Your task to perform on an android device: Open internet settings Image 0: 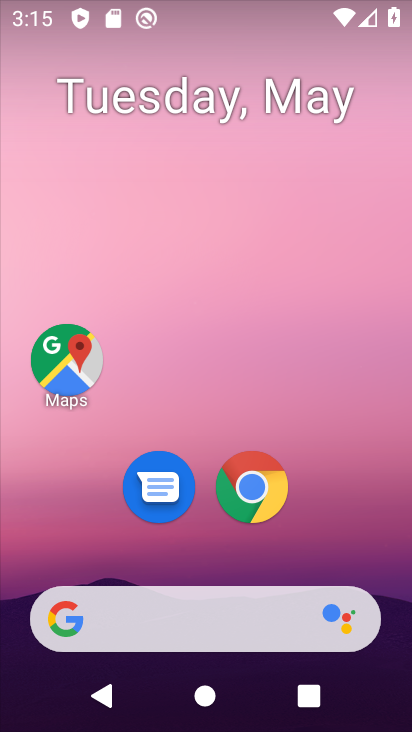
Step 0: drag from (215, 544) to (228, 172)
Your task to perform on an android device: Open internet settings Image 1: 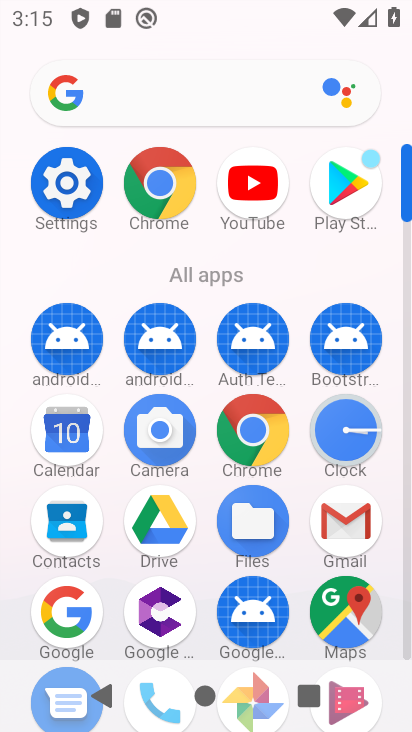
Step 1: click (69, 173)
Your task to perform on an android device: Open internet settings Image 2: 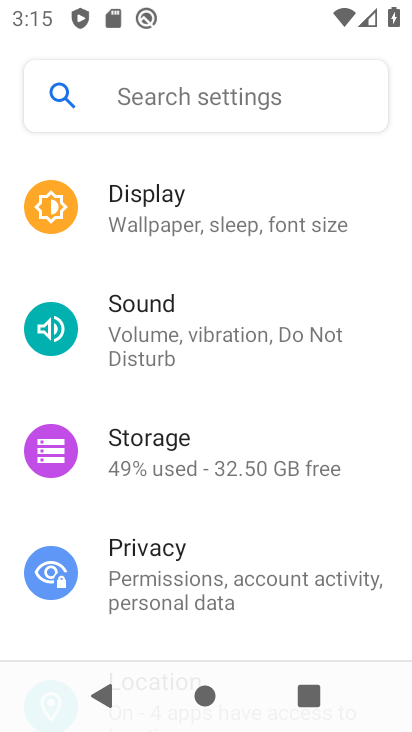
Step 2: drag from (195, 247) to (208, 727)
Your task to perform on an android device: Open internet settings Image 3: 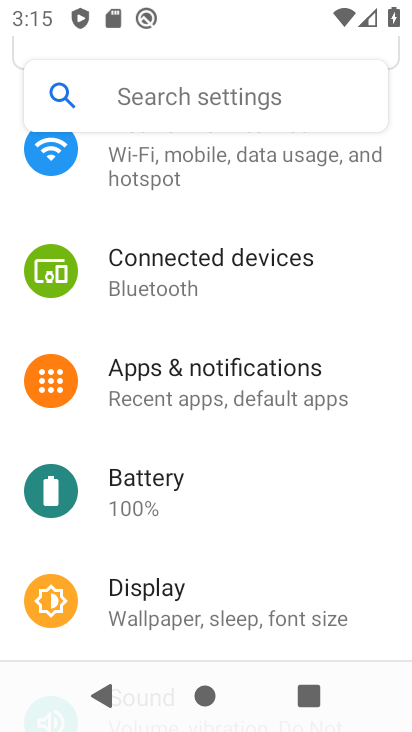
Step 3: click (185, 173)
Your task to perform on an android device: Open internet settings Image 4: 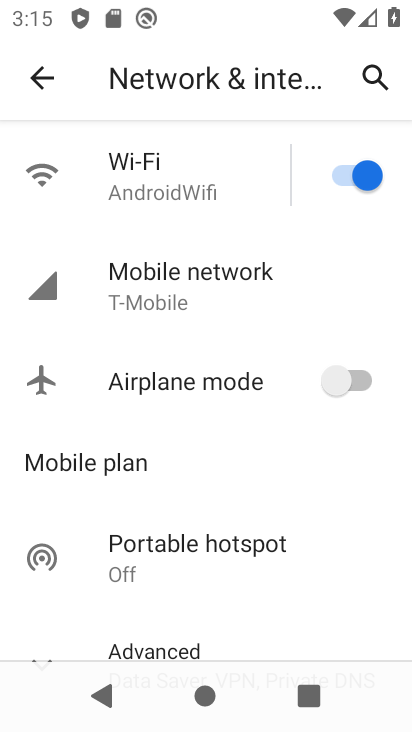
Step 4: drag from (143, 587) to (171, 154)
Your task to perform on an android device: Open internet settings Image 5: 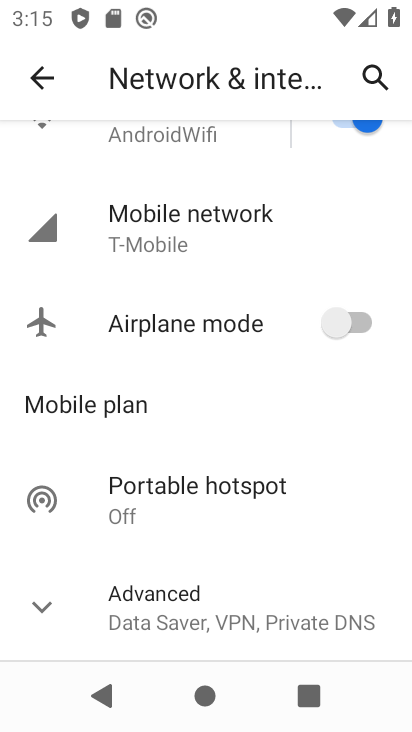
Step 5: click (50, 596)
Your task to perform on an android device: Open internet settings Image 6: 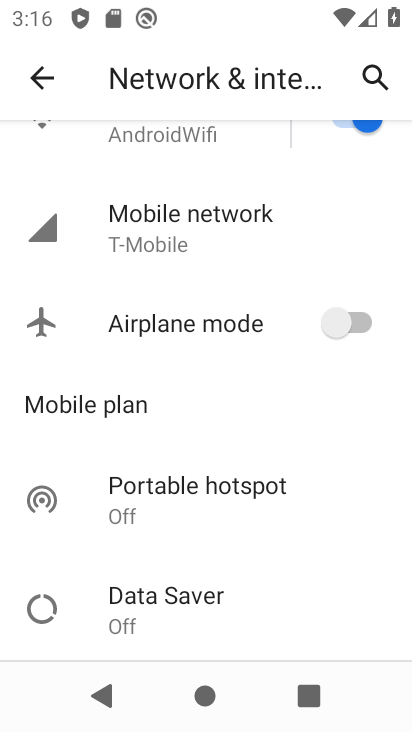
Step 6: task complete